Your task to perform on an android device: Open Youtube and go to the subscriptions tab Image 0: 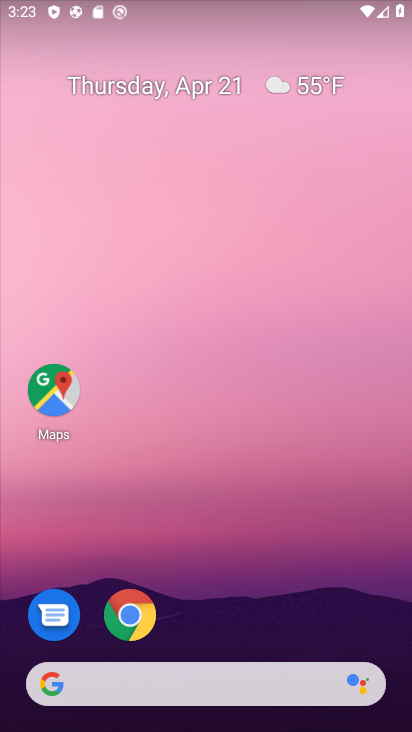
Step 0: drag from (275, 596) to (228, 97)
Your task to perform on an android device: Open Youtube and go to the subscriptions tab Image 1: 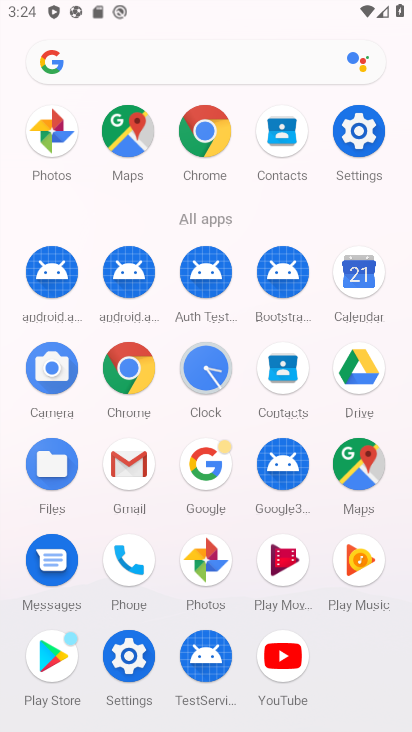
Step 1: drag from (13, 544) to (2, 264)
Your task to perform on an android device: Open Youtube and go to the subscriptions tab Image 2: 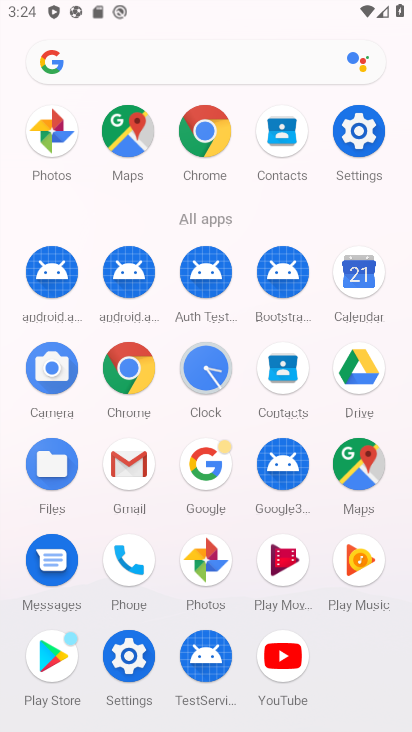
Step 2: click (288, 660)
Your task to perform on an android device: Open Youtube and go to the subscriptions tab Image 3: 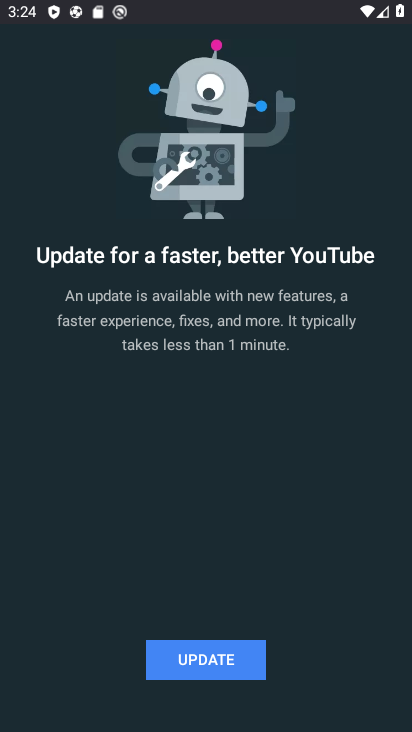
Step 3: click (204, 660)
Your task to perform on an android device: Open Youtube and go to the subscriptions tab Image 4: 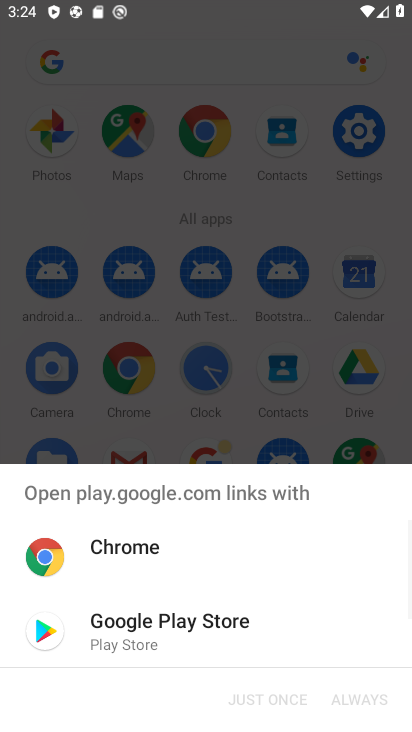
Step 4: click (158, 638)
Your task to perform on an android device: Open Youtube and go to the subscriptions tab Image 5: 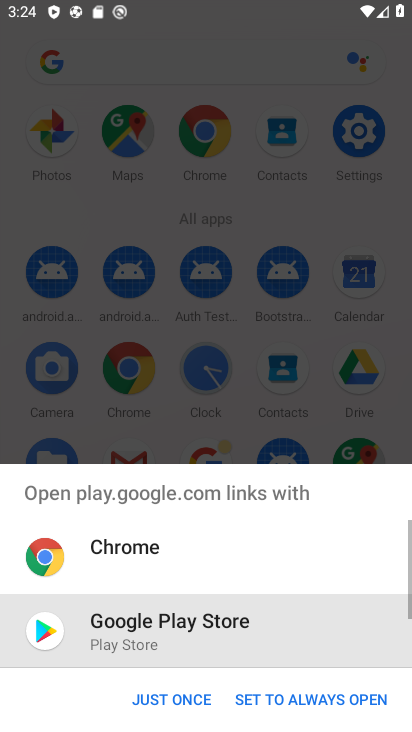
Step 5: click (233, 692)
Your task to perform on an android device: Open Youtube and go to the subscriptions tab Image 6: 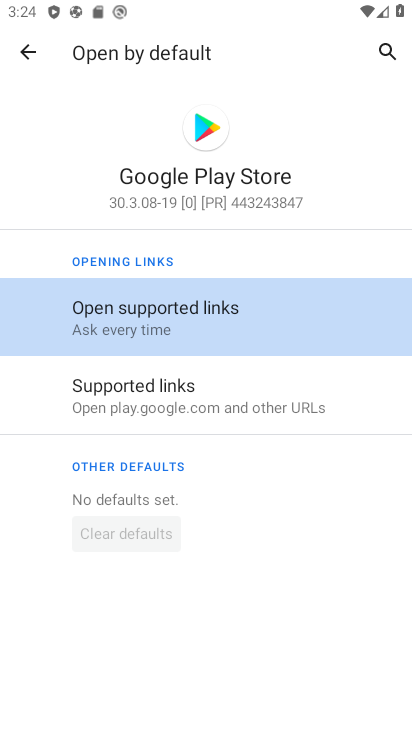
Step 6: click (26, 42)
Your task to perform on an android device: Open Youtube and go to the subscriptions tab Image 7: 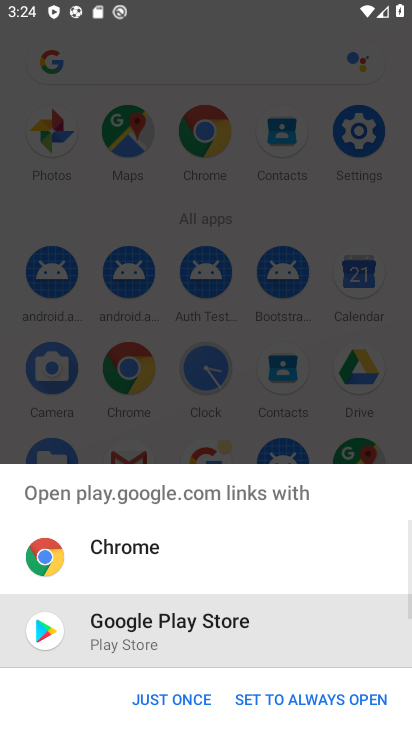
Step 7: click (160, 691)
Your task to perform on an android device: Open Youtube and go to the subscriptions tab Image 8: 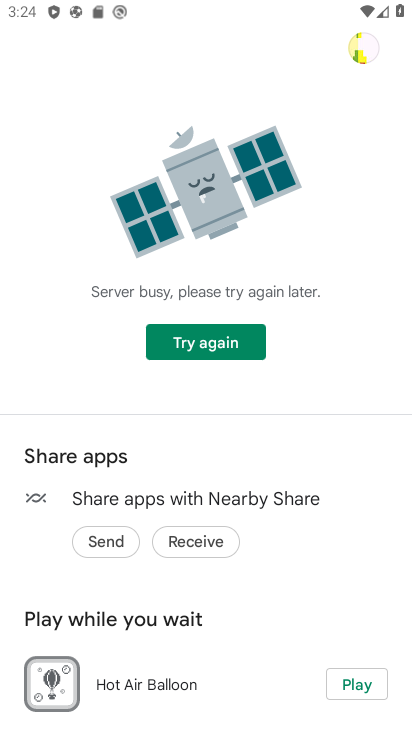
Step 8: press back button
Your task to perform on an android device: Open Youtube and go to the subscriptions tab Image 9: 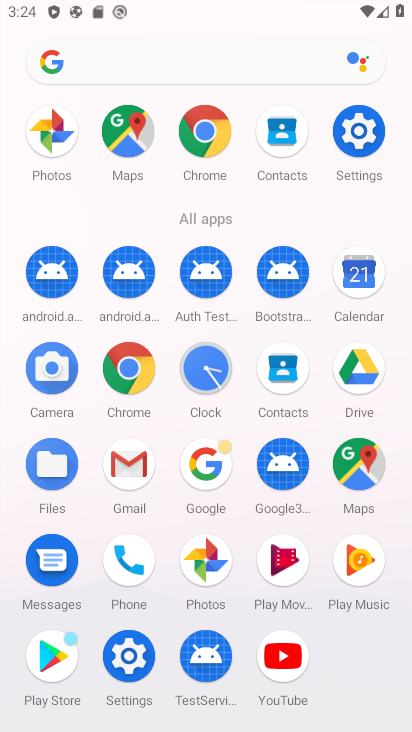
Step 9: click (291, 654)
Your task to perform on an android device: Open Youtube and go to the subscriptions tab Image 10: 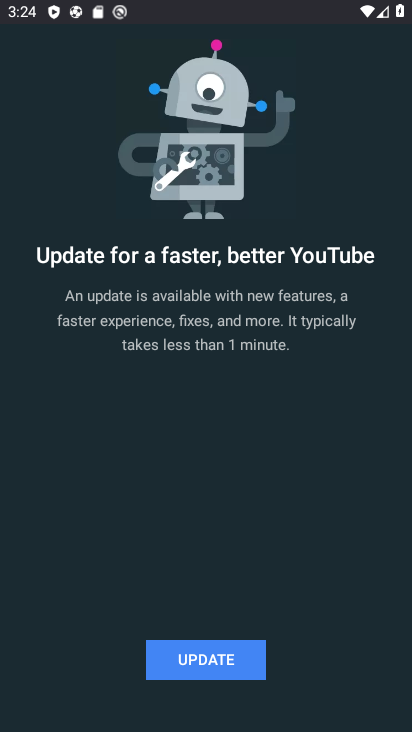
Step 10: click (248, 656)
Your task to perform on an android device: Open Youtube and go to the subscriptions tab Image 11: 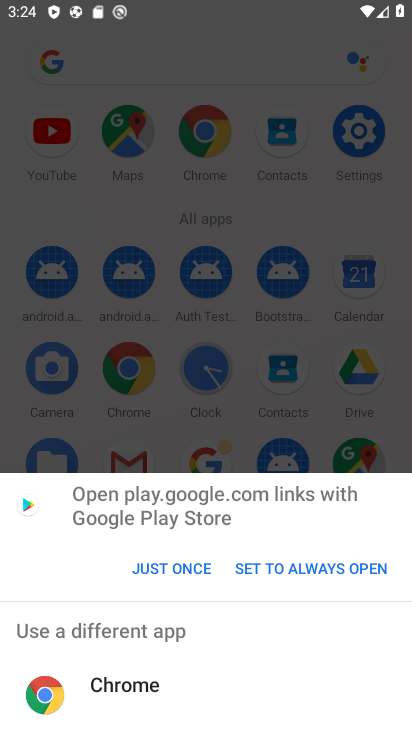
Step 11: click (179, 562)
Your task to perform on an android device: Open Youtube and go to the subscriptions tab Image 12: 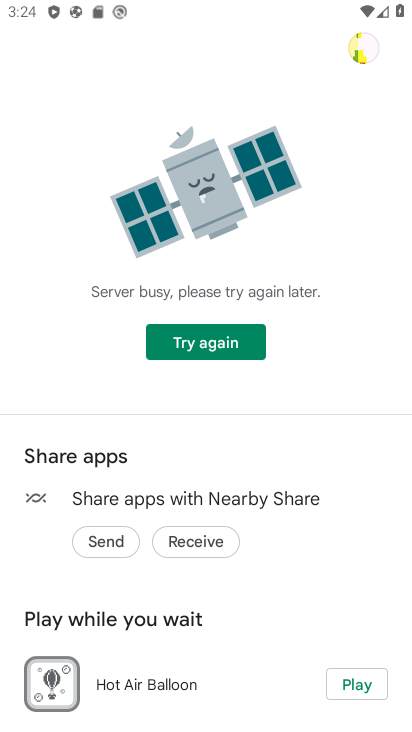
Step 12: task complete